Your task to perform on an android device: Is it going to rain this weekend? Image 0: 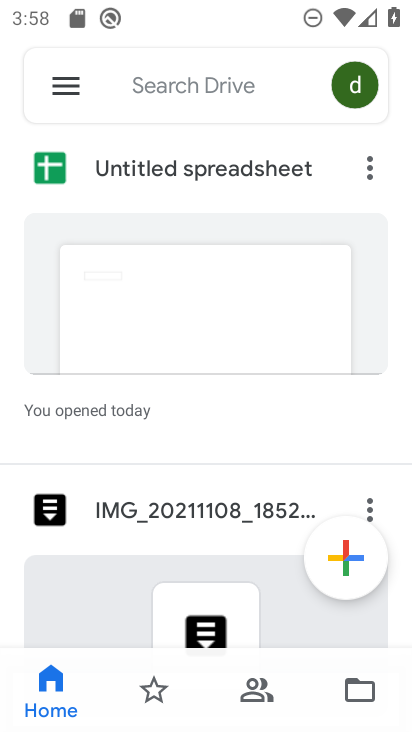
Step 0: press home button
Your task to perform on an android device: Is it going to rain this weekend? Image 1: 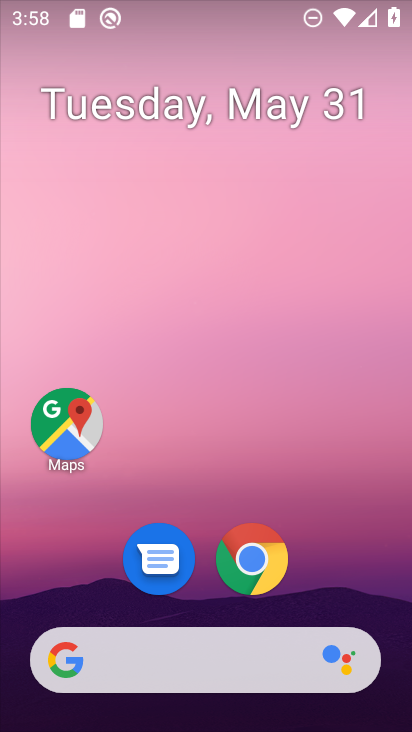
Step 1: drag from (238, 653) to (231, 213)
Your task to perform on an android device: Is it going to rain this weekend? Image 2: 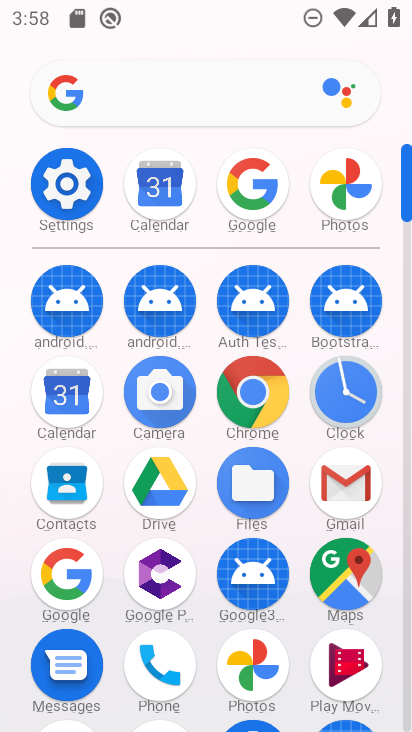
Step 2: click (67, 579)
Your task to perform on an android device: Is it going to rain this weekend? Image 3: 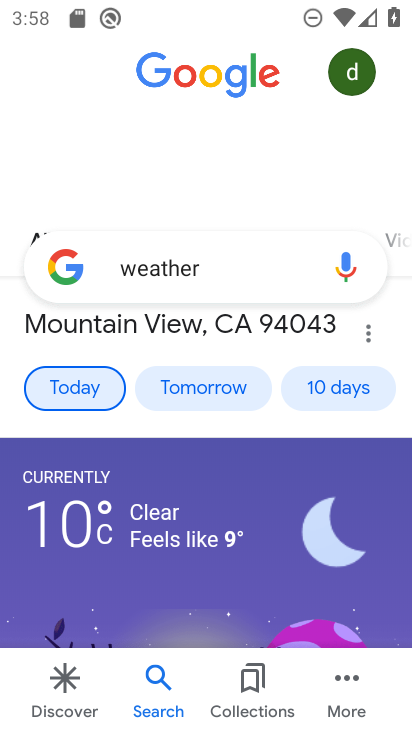
Step 3: click (344, 386)
Your task to perform on an android device: Is it going to rain this weekend? Image 4: 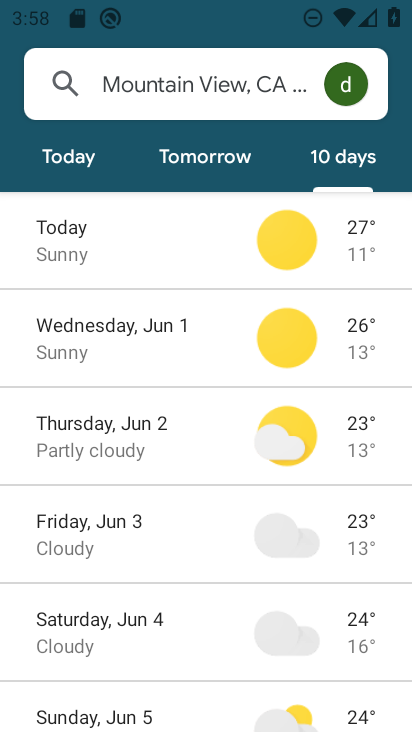
Step 4: drag from (131, 622) to (139, 232)
Your task to perform on an android device: Is it going to rain this weekend? Image 5: 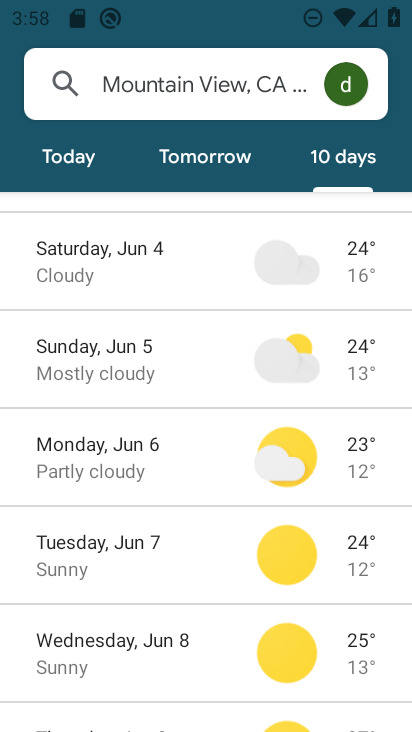
Step 5: click (130, 261)
Your task to perform on an android device: Is it going to rain this weekend? Image 6: 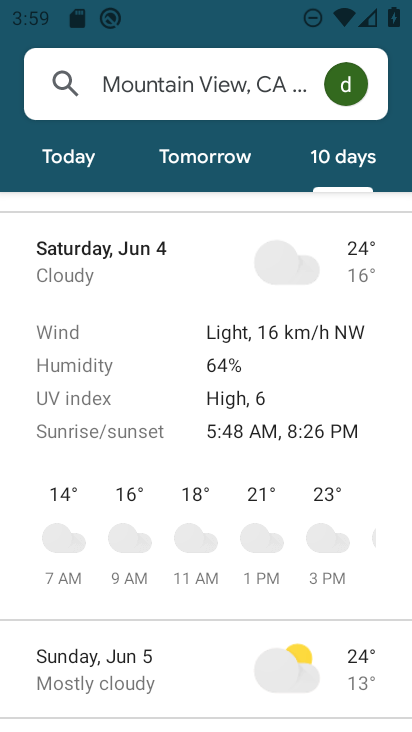
Step 6: task complete